Your task to perform on an android device: Go to display settings Image 0: 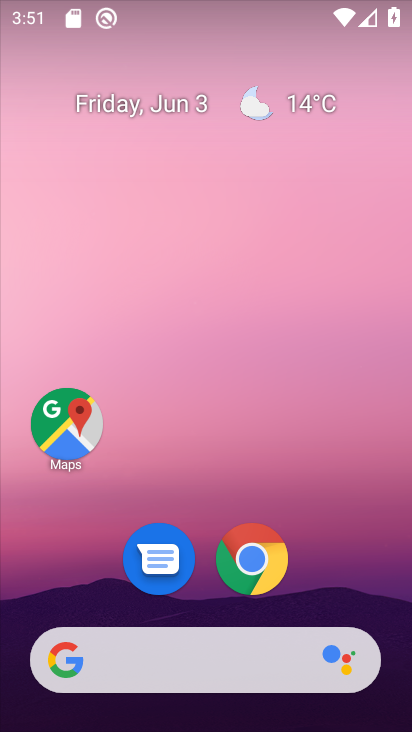
Step 0: drag from (225, 717) to (186, 85)
Your task to perform on an android device: Go to display settings Image 1: 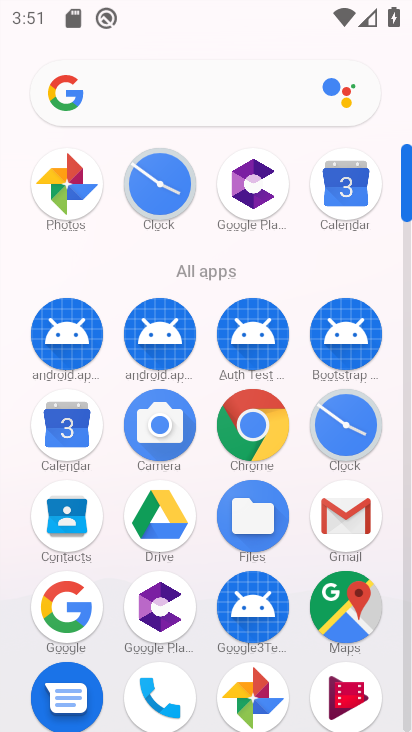
Step 1: drag from (199, 524) to (199, 336)
Your task to perform on an android device: Go to display settings Image 2: 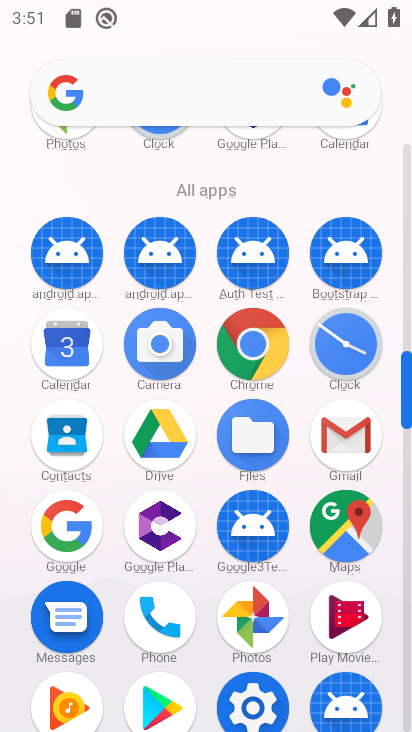
Step 2: drag from (237, 485) to (237, 340)
Your task to perform on an android device: Go to display settings Image 3: 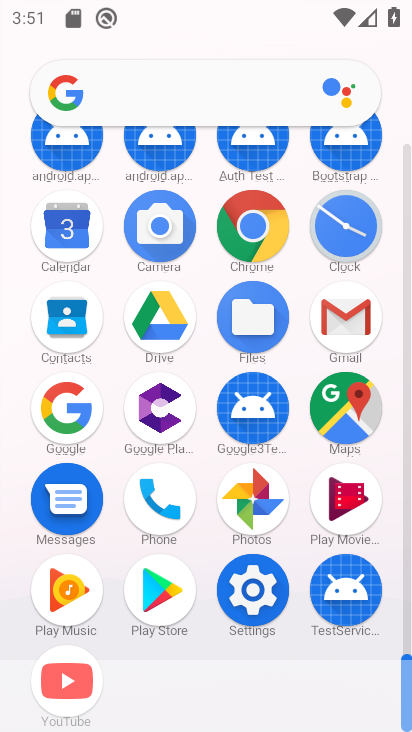
Step 3: drag from (317, 569) to (314, 407)
Your task to perform on an android device: Go to display settings Image 4: 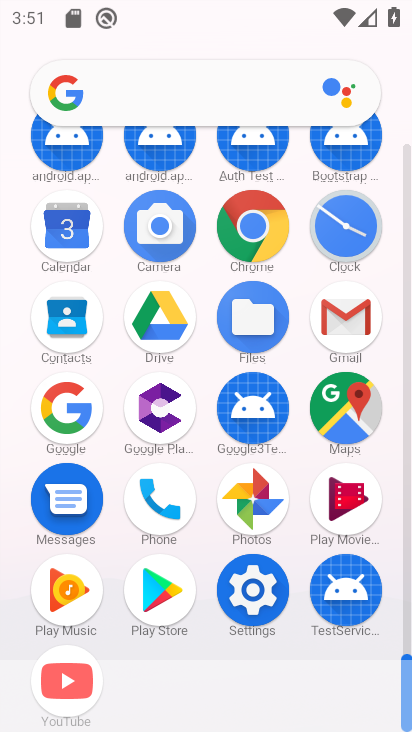
Step 4: click (258, 594)
Your task to perform on an android device: Go to display settings Image 5: 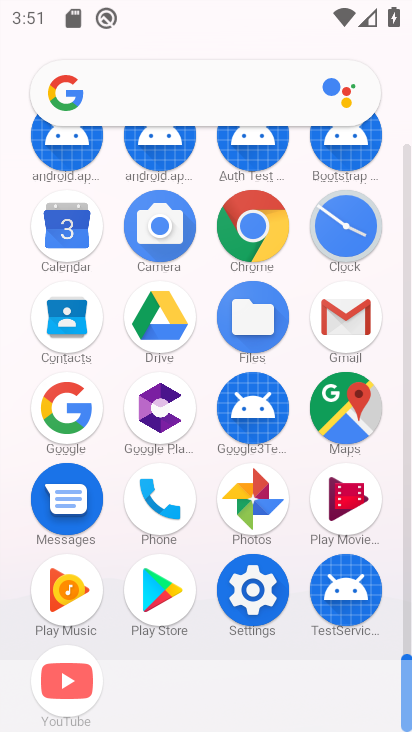
Step 5: click (258, 594)
Your task to perform on an android device: Go to display settings Image 6: 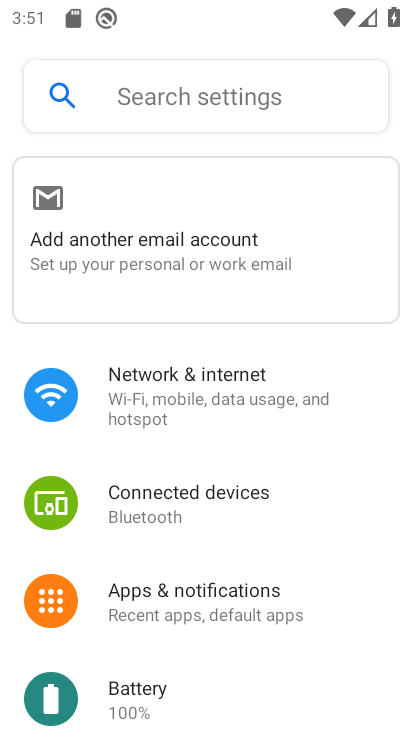
Step 6: drag from (156, 608) to (156, 348)
Your task to perform on an android device: Go to display settings Image 7: 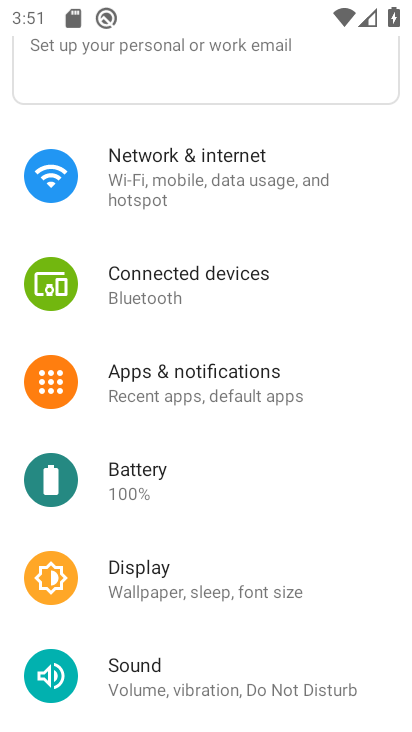
Step 7: drag from (194, 426) to (194, 269)
Your task to perform on an android device: Go to display settings Image 8: 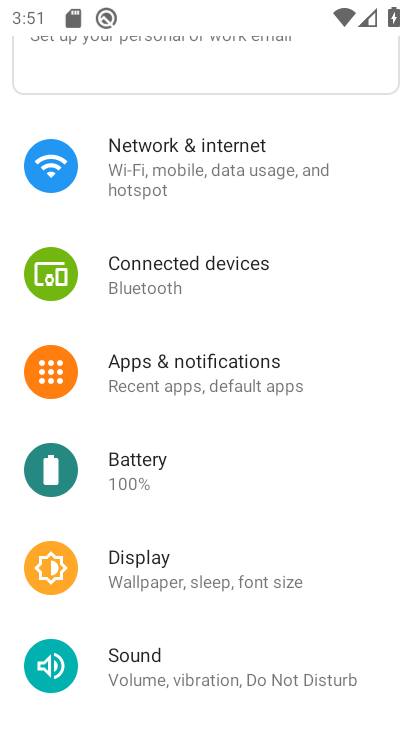
Step 8: click (139, 577)
Your task to perform on an android device: Go to display settings Image 9: 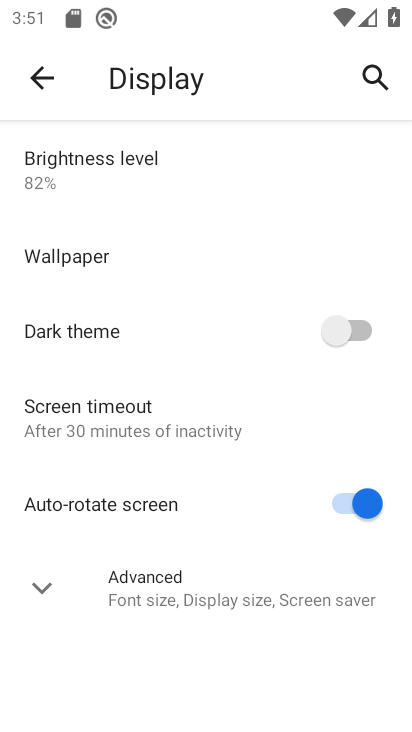
Step 9: task complete